Your task to perform on an android device: Go to Maps Image 0: 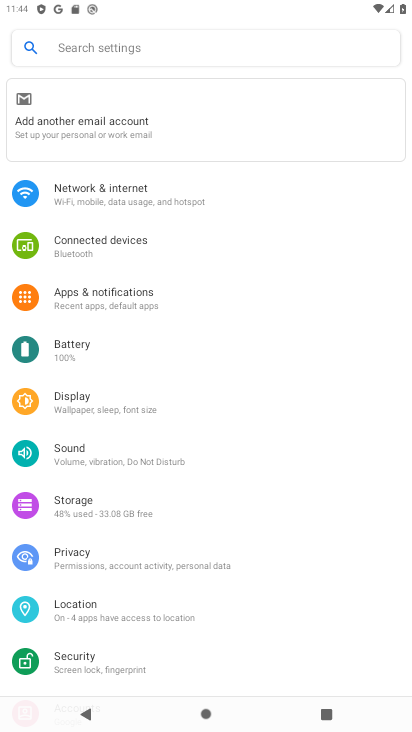
Step 0: press home button
Your task to perform on an android device: Go to Maps Image 1: 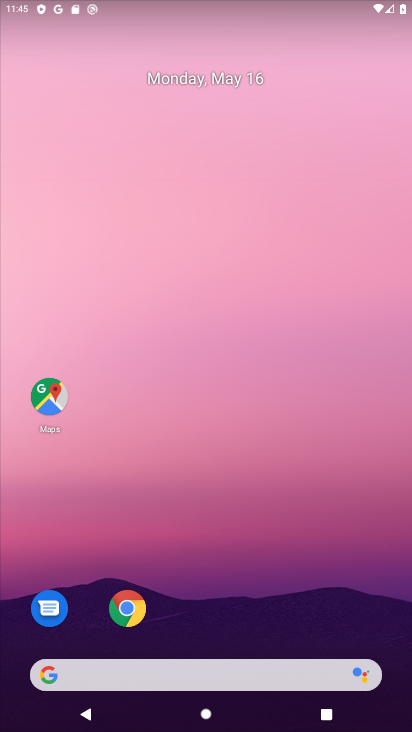
Step 1: click (56, 387)
Your task to perform on an android device: Go to Maps Image 2: 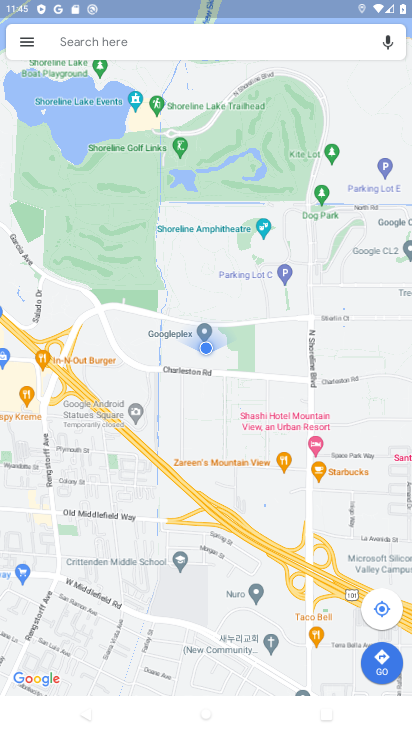
Step 2: task complete